Your task to perform on an android device: Go to ESPN.com Image 0: 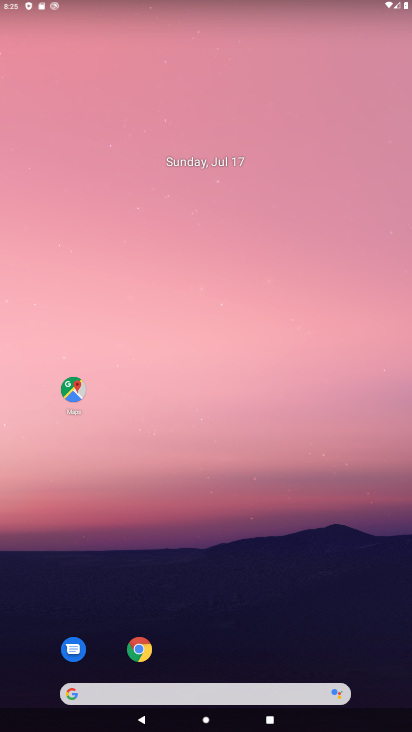
Step 0: drag from (288, 631) to (290, 11)
Your task to perform on an android device: Go to ESPN.com Image 1: 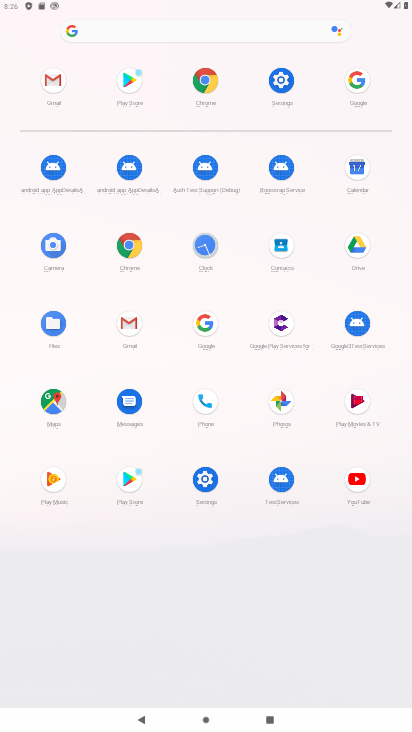
Step 1: click (203, 323)
Your task to perform on an android device: Go to ESPN.com Image 2: 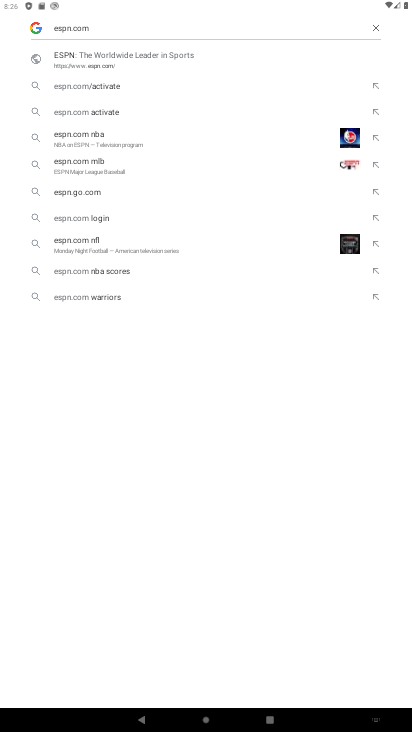
Step 2: click (152, 63)
Your task to perform on an android device: Go to ESPN.com Image 3: 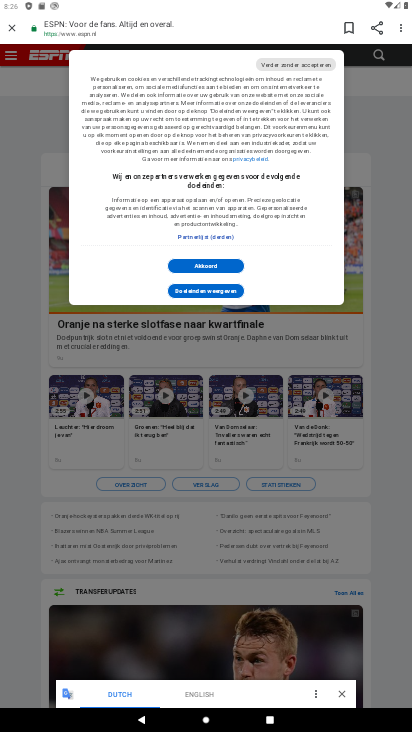
Step 3: task complete